Your task to perform on an android device: open sync settings in chrome Image 0: 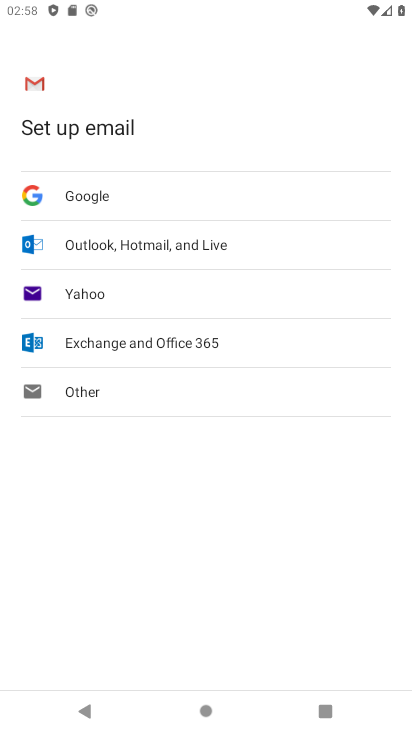
Step 0: click (408, 180)
Your task to perform on an android device: open sync settings in chrome Image 1: 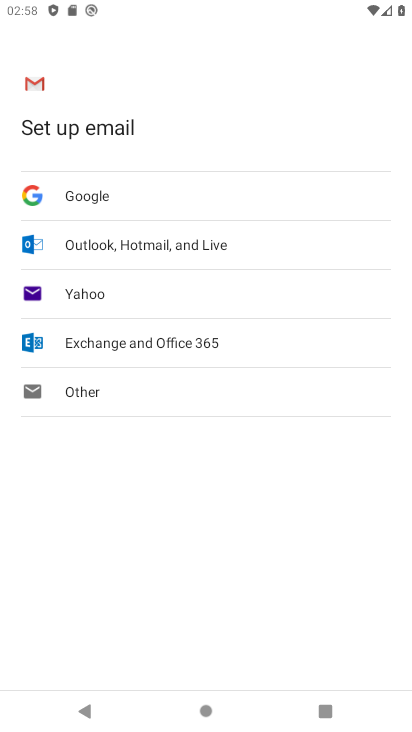
Step 1: press home button
Your task to perform on an android device: open sync settings in chrome Image 2: 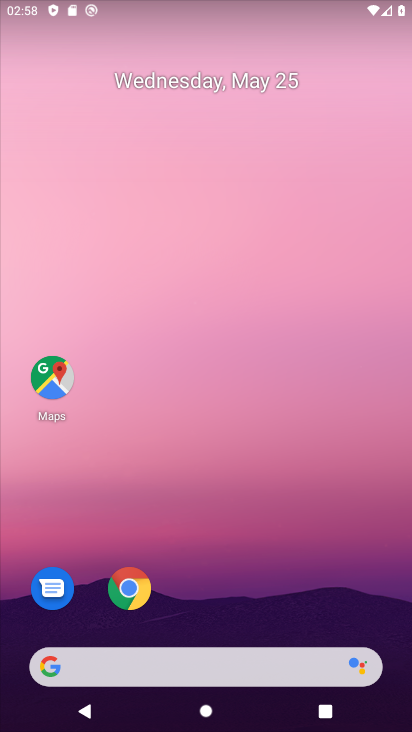
Step 2: drag from (256, 586) to (250, 124)
Your task to perform on an android device: open sync settings in chrome Image 3: 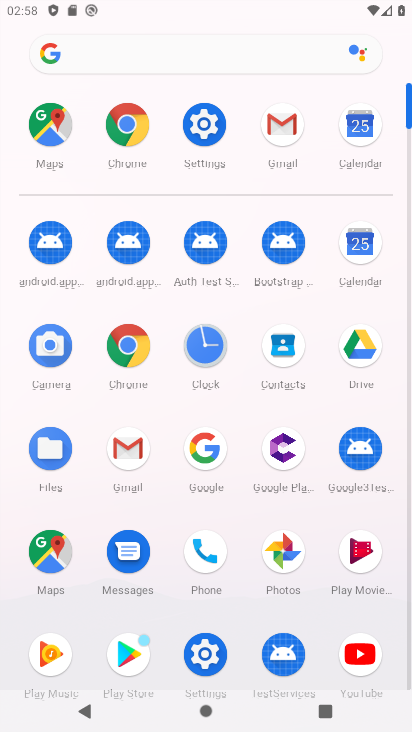
Step 3: click (129, 140)
Your task to perform on an android device: open sync settings in chrome Image 4: 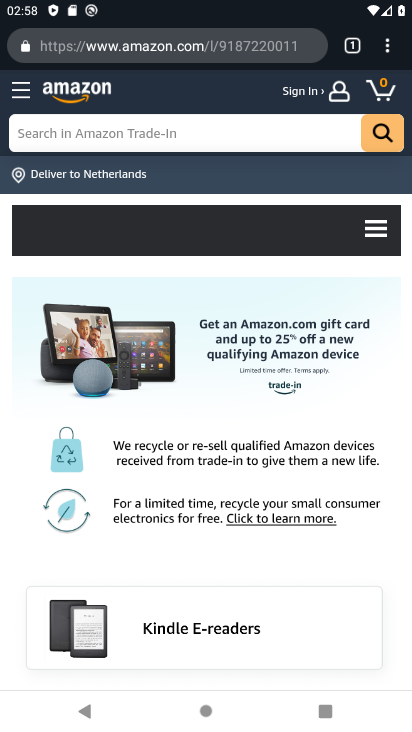
Step 4: drag from (385, 44) to (220, 546)
Your task to perform on an android device: open sync settings in chrome Image 5: 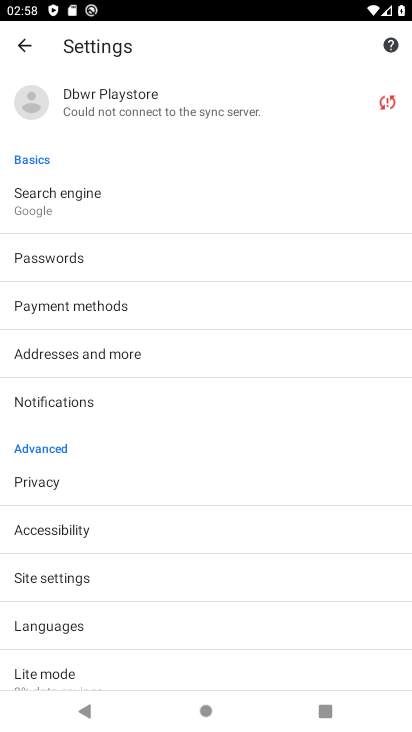
Step 5: click (82, 98)
Your task to perform on an android device: open sync settings in chrome Image 6: 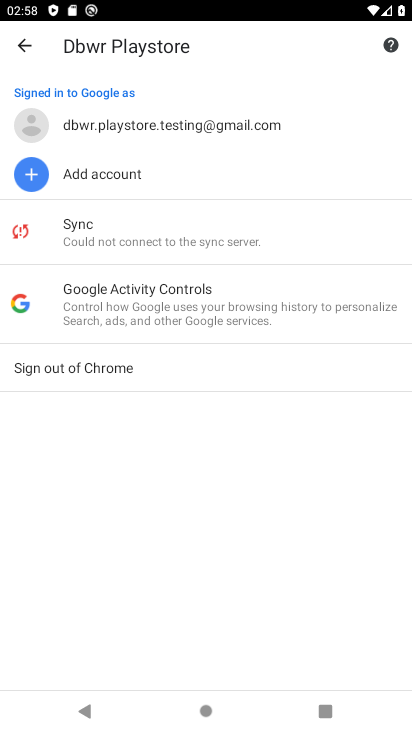
Step 6: click (140, 237)
Your task to perform on an android device: open sync settings in chrome Image 7: 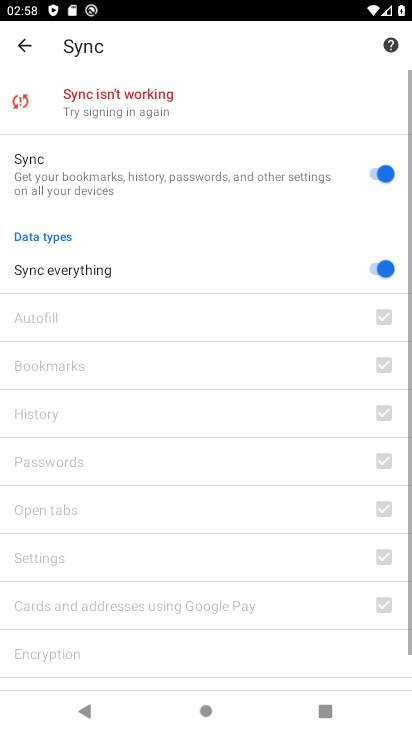
Step 7: task complete